Your task to perform on an android device: Open calendar and show me the second week of next month Image 0: 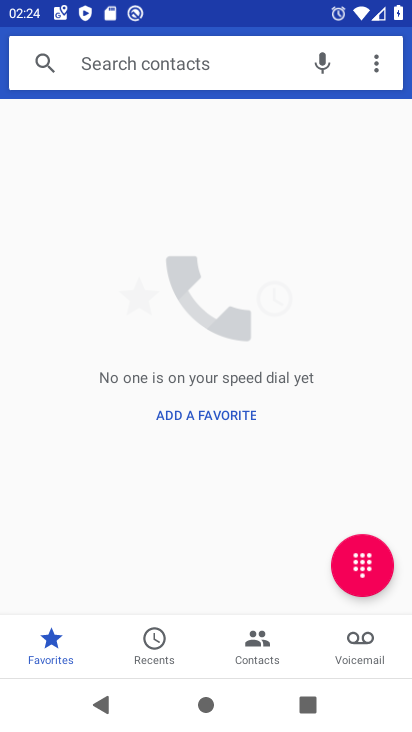
Step 0: press home button
Your task to perform on an android device: Open calendar and show me the second week of next month Image 1: 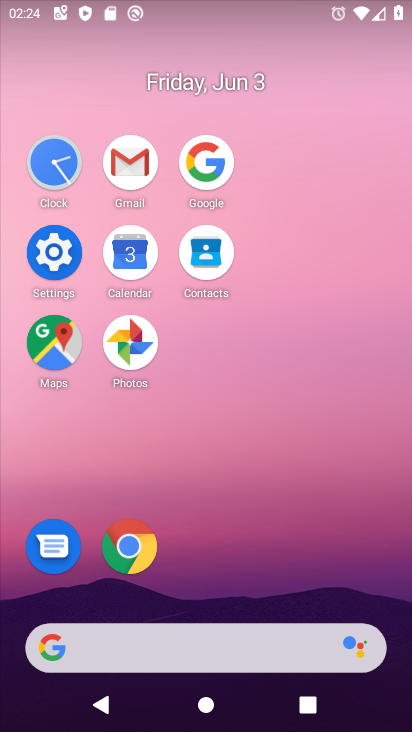
Step 1: click (132, 270)
Your task to perform on an android device: Open calendar and show me the second week of next month Image 2: 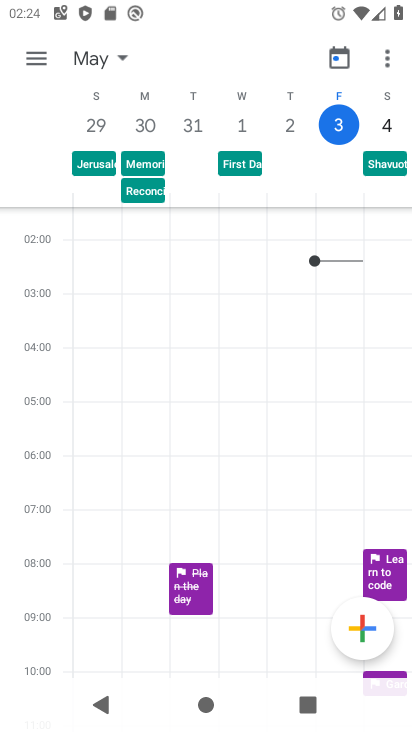
Step 2: click (112, 58)
Your task to perform on an android device: Open calendar and show me the second week of next month Image 3: 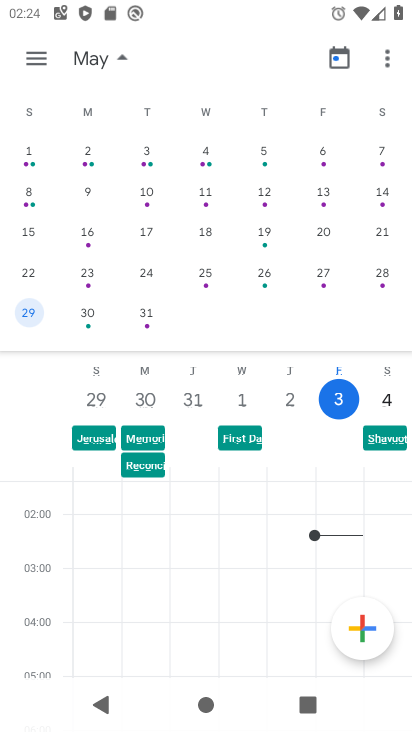
Step 3: drag from (391, 222) to (18, 257)
Your task to perform on an android device: Open calendar and show me the second week of next month Image 4: 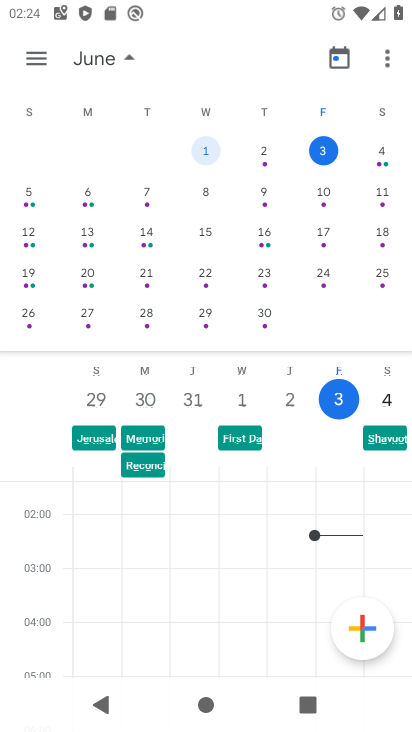
Step 4: drag from (393, 238) to (0, 259)
Your task to perform on an android device: Open calendar and show me the second week of next month Image 5: 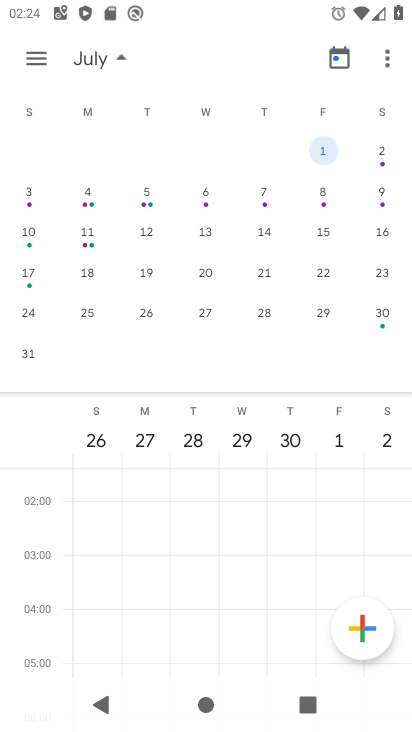
Step 5: click (48, 52)
Your task to perform on an android device: Open calendar and show me the second week of next month Image 6: 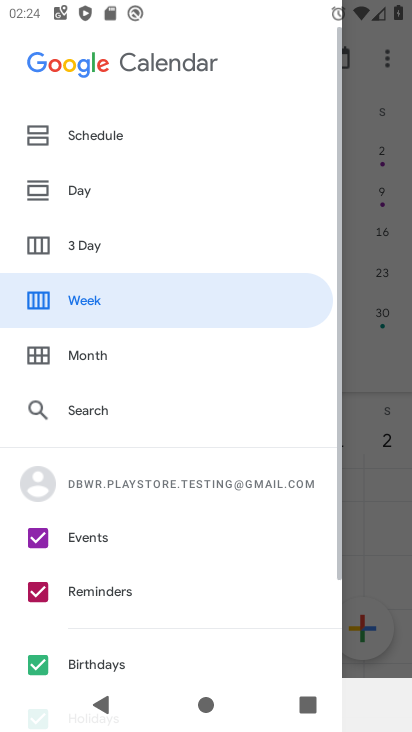
Step 6: click (142, 297)
Your task to perform on an android device: Open calendar and show me the second week of next month Image 7: 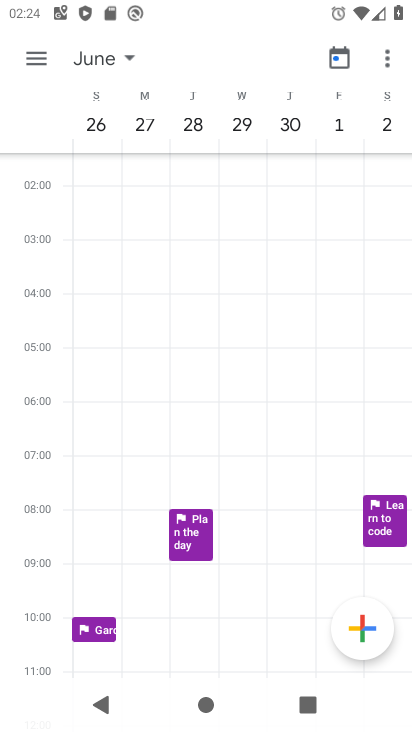
Step 7: task complete